Your task to perform on an android device: Open Yahoo.com Image 0: 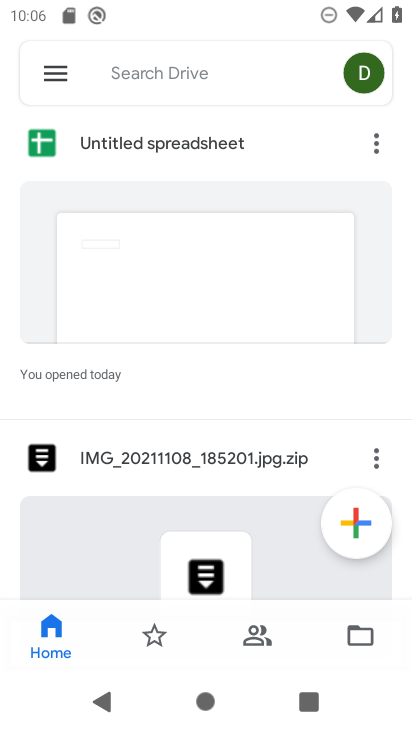
Step 0: press home button
Your task to perform on an android device: Open Yahoo.com Image 1: 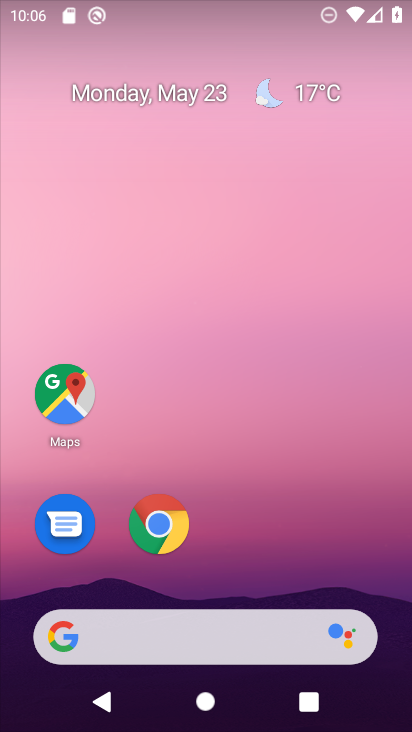
Step 1: click (154, 515)
Your task to perform on an android device: Open Yahoo.com Image 2: 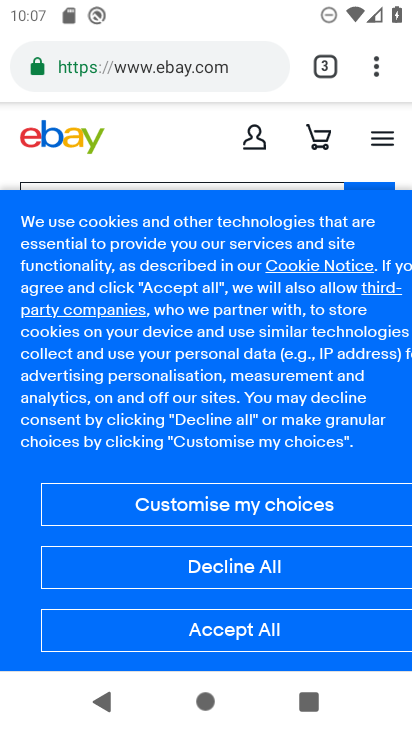
Step 2: click (320, 71)
Your task to perform on an android device: Open Yahoo.com Image 3: 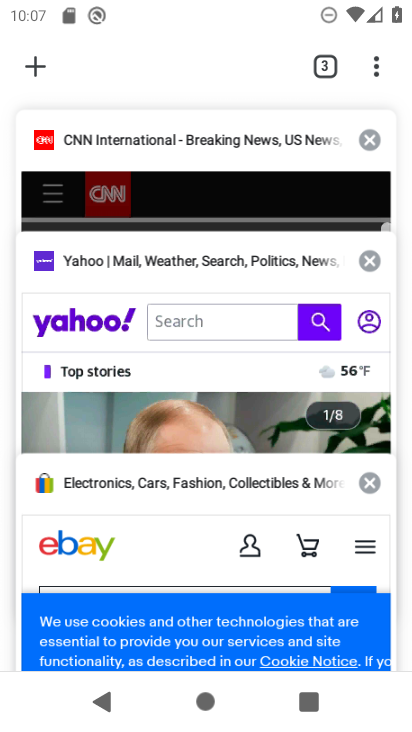
Step 3: click (132, 318)
Your task to perform on an android device: Open Yahoo.com Image 4: 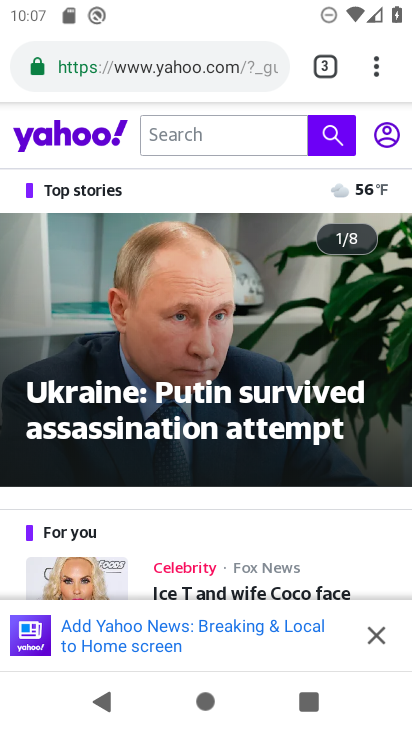
Step 4: task complete